Your task to perform on an android device: Go to notification settings Image 0: 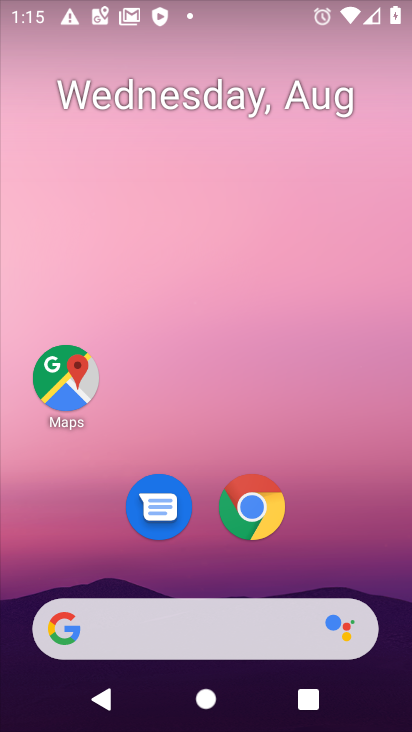
Step 0: drag from (219, 597) to (150, 18)
Your task to perform on an android device: Go to notification settings Image 1: 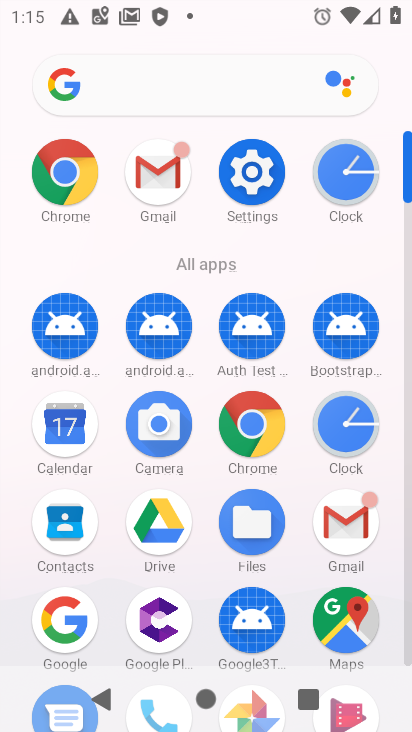
Step 1: click (238, 156)
Your task to perform on an android device: Go to notification settings Image 2: 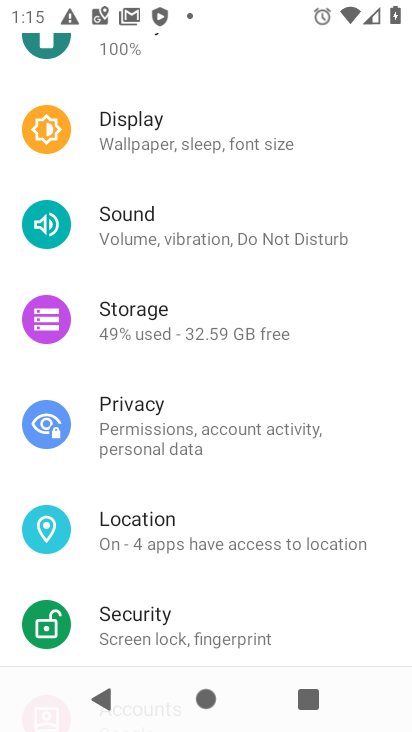
Step 2: drag from (221, 194) to (191, 656)
Your task to perform on an android device: Go to notification settings Image 3: 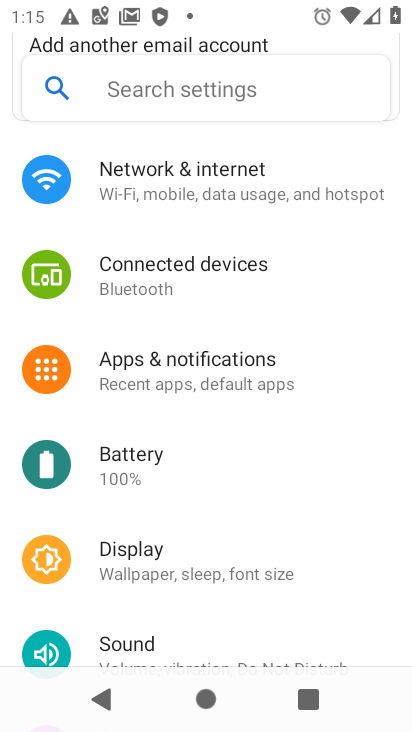
Step 3: click (193, 351)
Your task to perform on an android device: Go to notification settings Image 4: 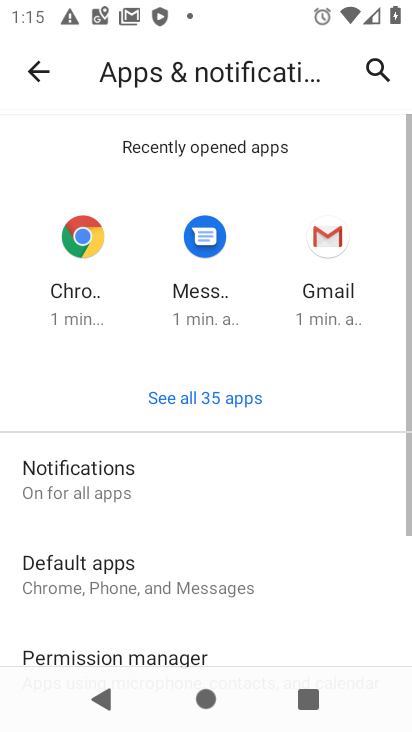
Step 4: click (147, 463)
Your task to perform on an android device: Go to notification settings Image 5: 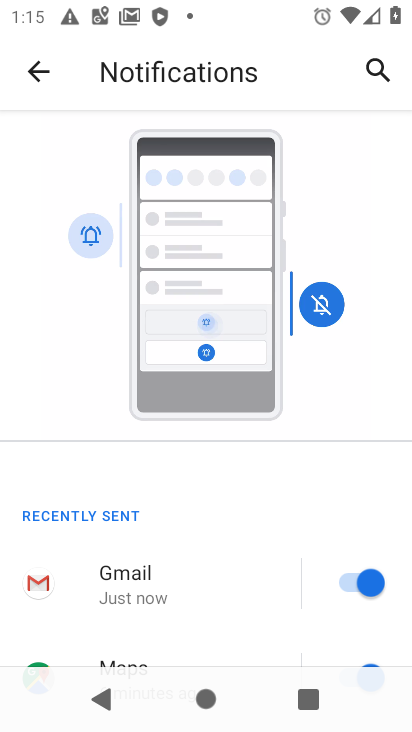
Step 5: task complete